Your task to perform on an android device: open the mobile data screen to see how much data has been used Image 0: 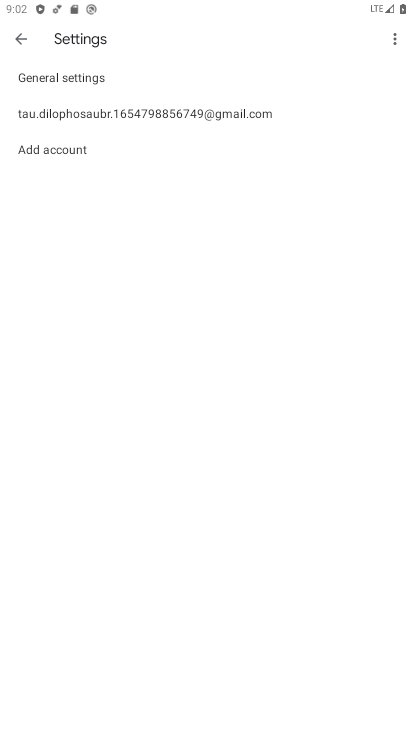
Step 0: press home button
Your task to perform on an android device: open the mobile data screen to see how much data has been used Image 1: 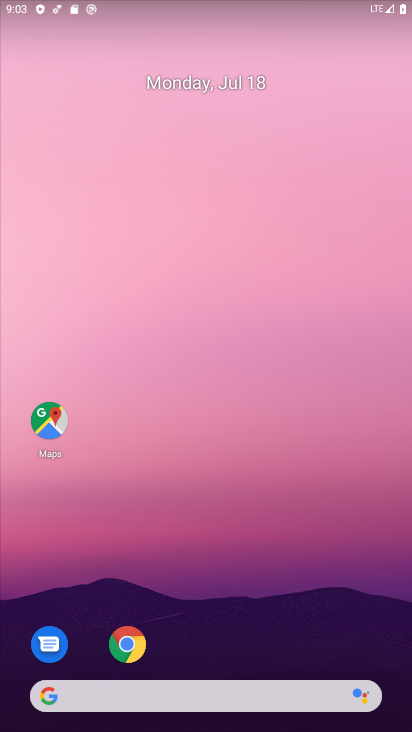
Step 1: drag from (301, 625) to (390, 121)
Your task to perform on an android device: open the mobile data screen to see how much data has been used Image 2: 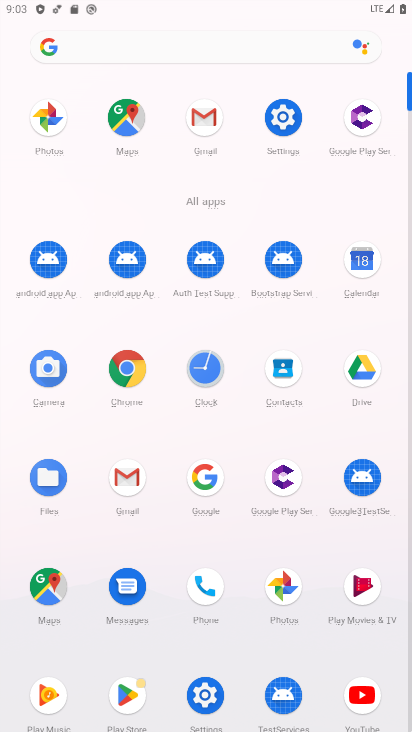
Step 2: click (285, 125)
Your task to perform on an android device: open the mobile data screen to see how much data has been used Image 3: 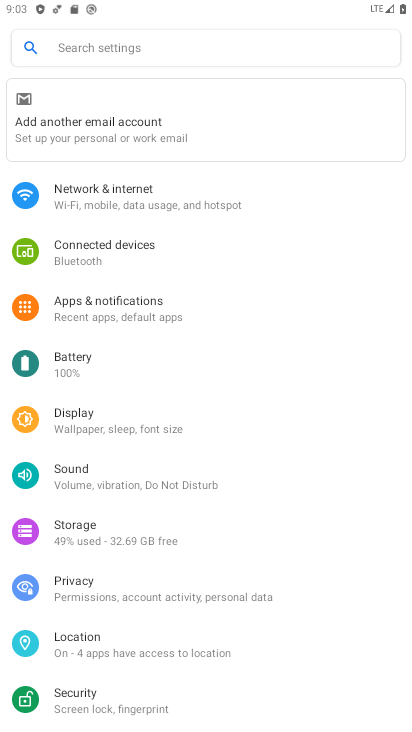
Step 3: drag from (315, 530) to (321, 424)
Your task to perform on an android device: open the mobile data screen to see how much data has been used Image 4: 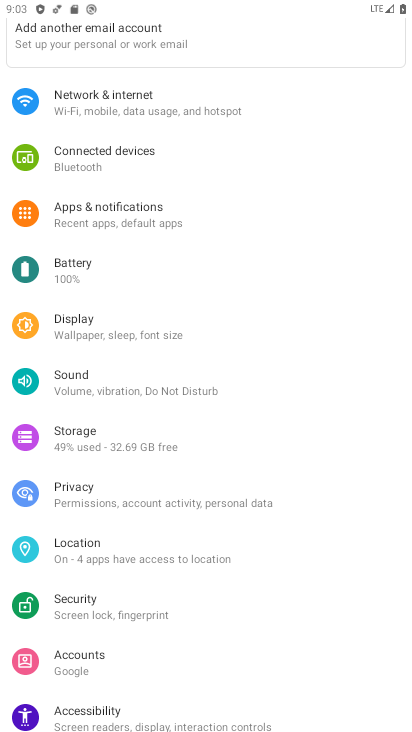
Step 4: drag from (308, 609) to (317, 420)
Your task to perform on an android device: open the mobile data screen to see how much data has been used Image 5: 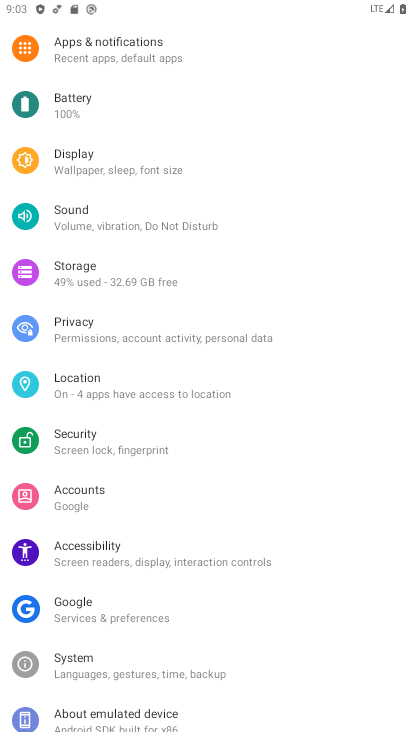
Step 5: drag from (311, 616) to (313, 471)
Your task to perform on an android device: open the mobile data screen to see how much data has been used Image 6: 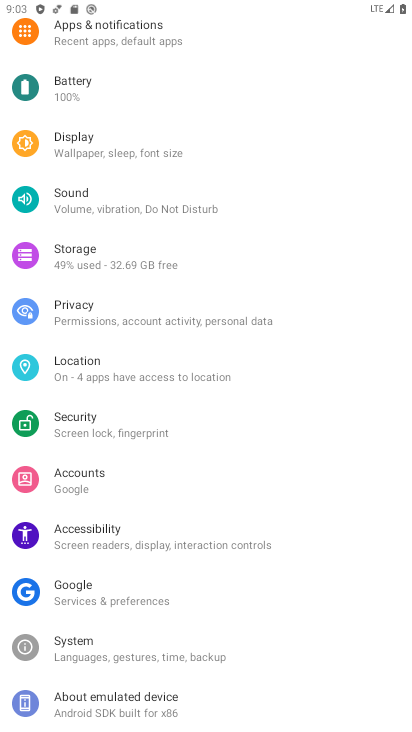
Step 6: drag from (334, 320) to (322, 417)
Your task to perform on an android device: open the mobile data screen to see how much data has been used Image 7: 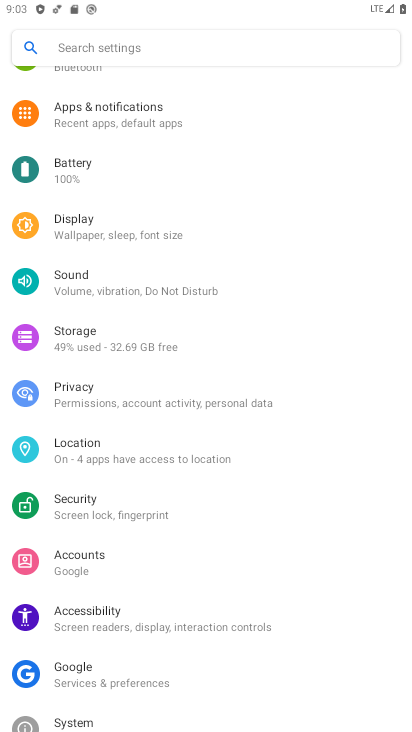
Step 7: drag from (305, 311) to (308, 441)
Your task to perform on an android device: open the mobile data screen to see how much data has been used Image 8: 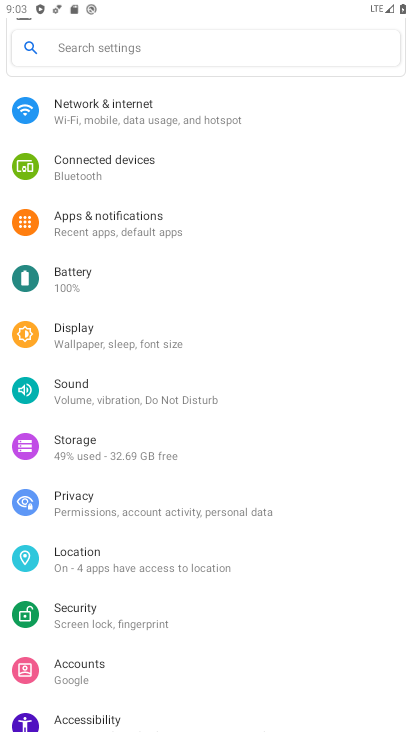
Step 8: drag from (319, 309) to (319, 421)
Your task to perform on an android device: open the mobile data screen to see how much data has been used Image 9: 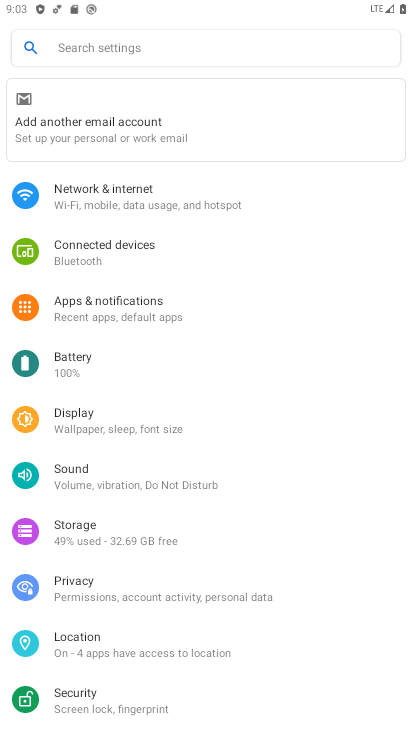
Step 9: drag from (306, 329) to (311, 425)
Your task to perform on an android device: open the mobile data screen to see how much data has been used Image 10: 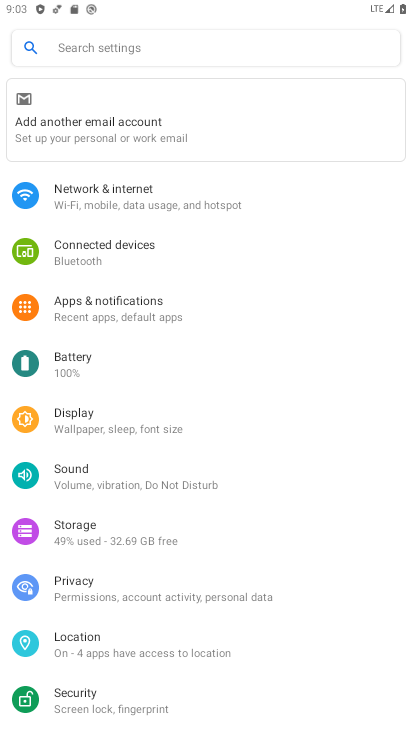
Step 10: drag from (315, 342) to (324, 465)
Your task to perform on an android device: open the mobile data screen to see how much data has been used Image 11: 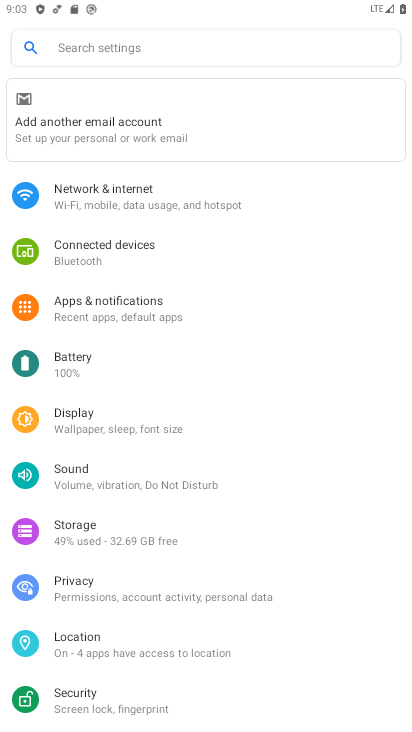
Step 11: click (195, 193)
Your task to perform on an android device: open the mobile data screen to see how much data has been used Image 12: 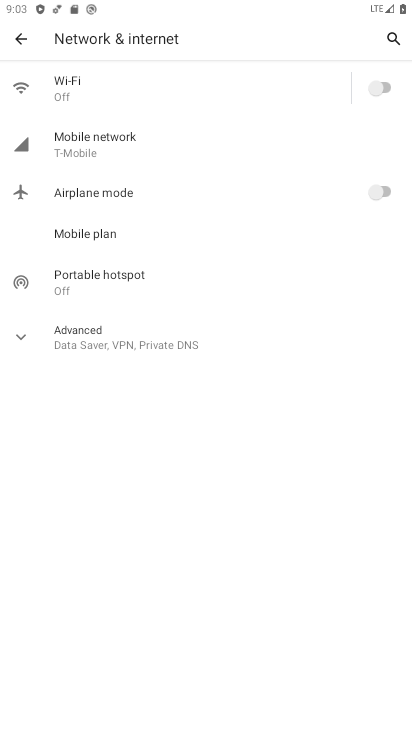
Step 12: click (119, 148)
Your task to perform on an android device: open the mobile data screen to see how much data has been used Image 13: 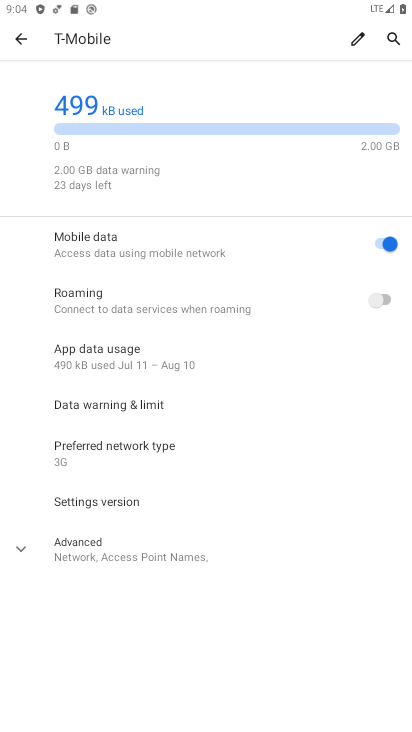
Step 13: drag from (287, 532) to (287, 434)
Your task to perform on an android device: open the mobile data screen to see how much data has been used Image 14: 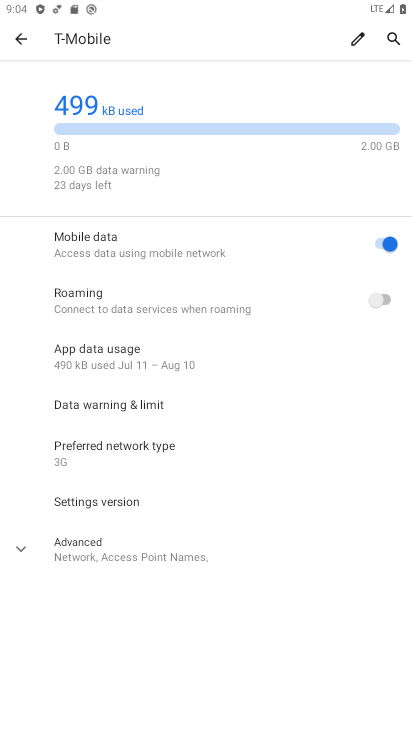
Step 14: click (135, 351)
Your task to perform on an android device: open the mobile data screen to see how much data has been used Image 15: 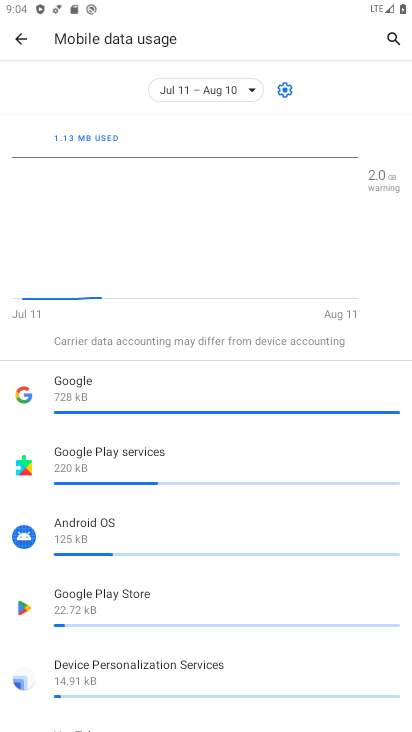
Step 15: task complete